Your task to perform on an android device: delete location history Image 0: 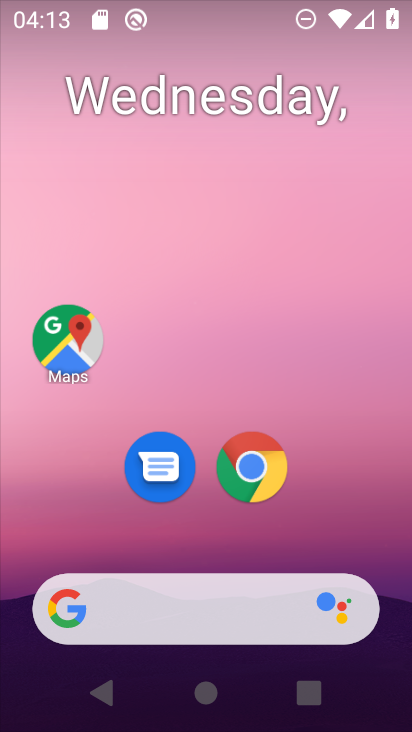
Step 0: click (63, 340)
Your task to perform on an android device: delete location history Image 1: 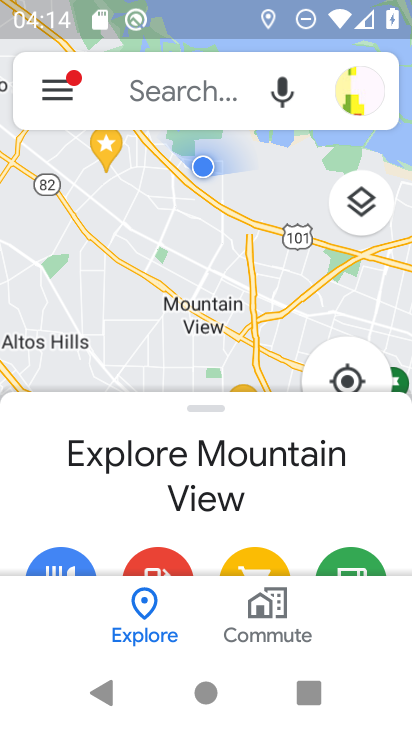
Step 1: click (60, 91)
Your task to perform on an android device: delete location history Image 2: 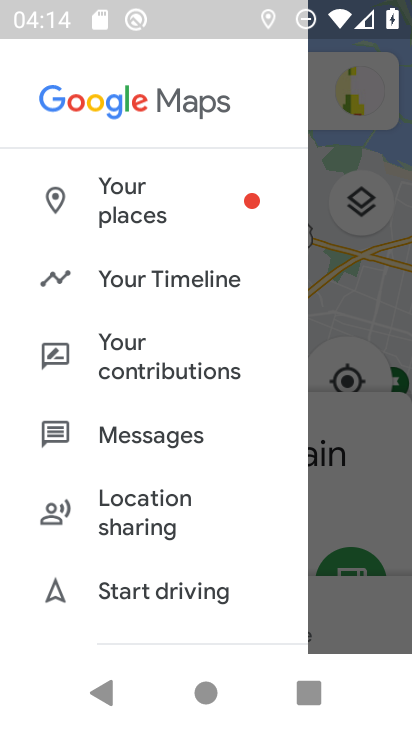
Step 2: drag from (232, 504) to (254, 234)
Your task to perform on an android device: delete location history Image 3: 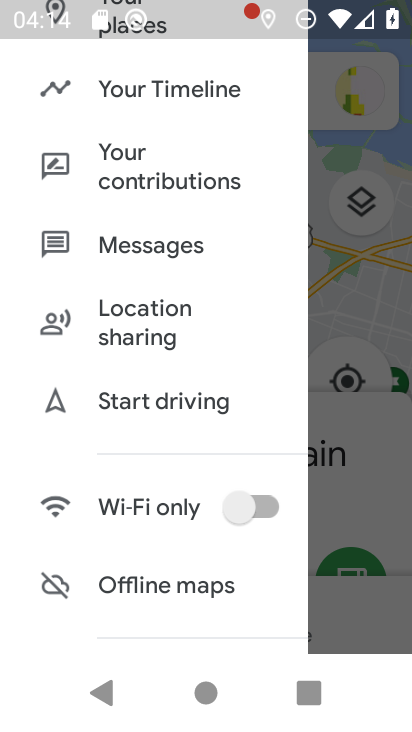
Step 3: drag from (229, 556) to (233, 268)
Your task to perform on an android device: delete location history Image 4: 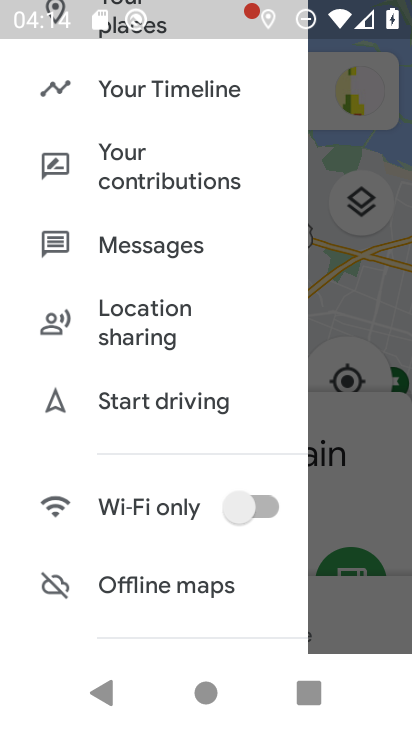
Step 4: drag from (219, 595) to (240, 226)
Your task to perform on an android device: delete location history Image 5: 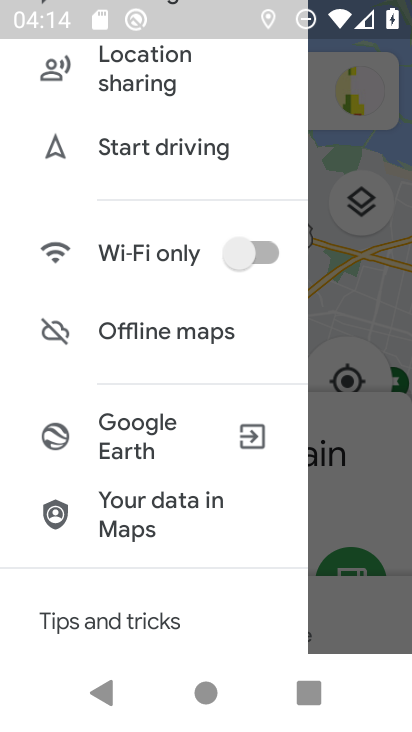
Step 5: drag from (228, 539) to (217, 249)
Your task to perform on an android device: delete location history Image 6: 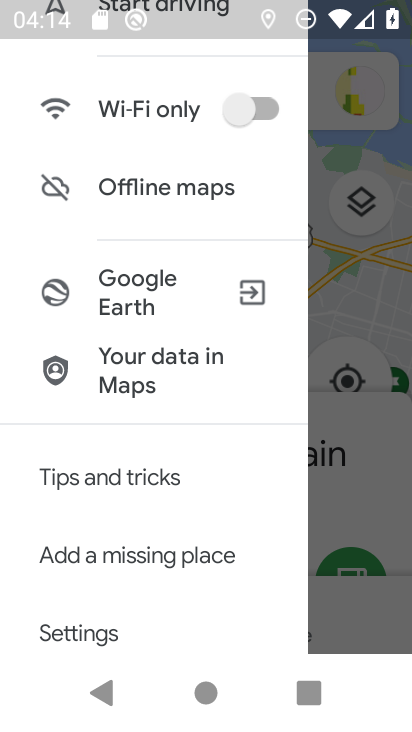
Step 6: drag from (179, 599) to (275, 337)
Your task to perform on an android device: delete location history Image 7: 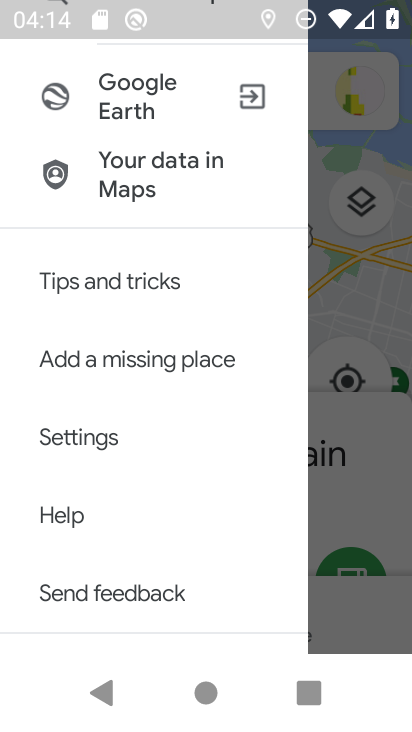
Step 7: click (67, 433)
Your task to perform on an android device: delete location history Image 8: 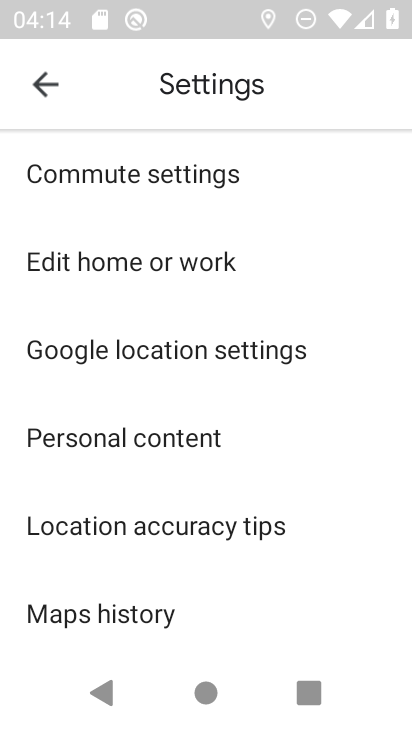
Step 8: click (107, 437)
Your task to perform on an android device: delete location history Image 9: 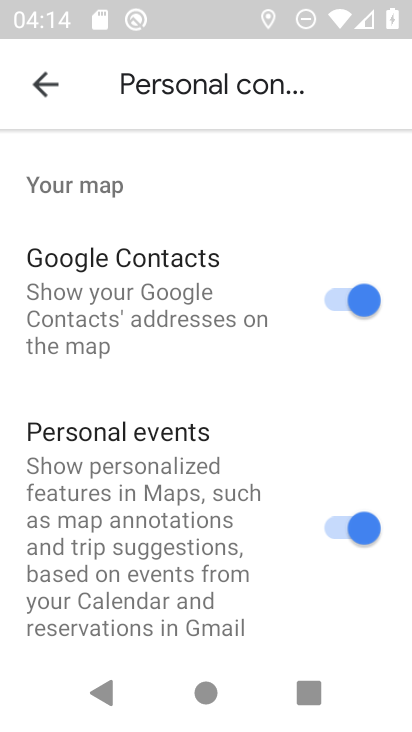
Step 9: drag from (285, 597) to (274, 272)
Your task to perform on an android device: delete location history Image 10: 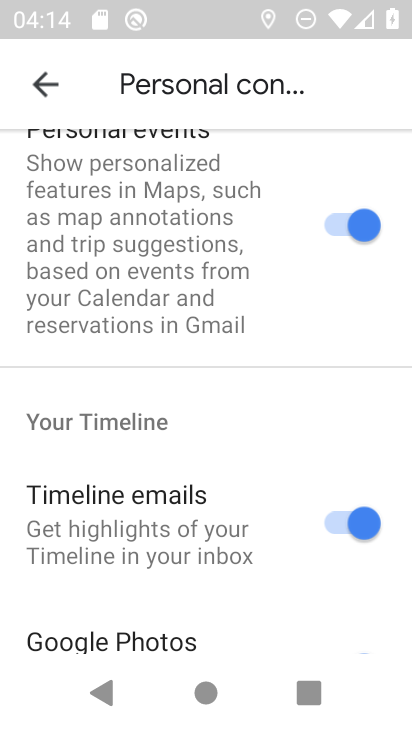
Step 10: drag from (254, 541) to (266, 193)
Your task to perform on an android device: delete location history Image 11: 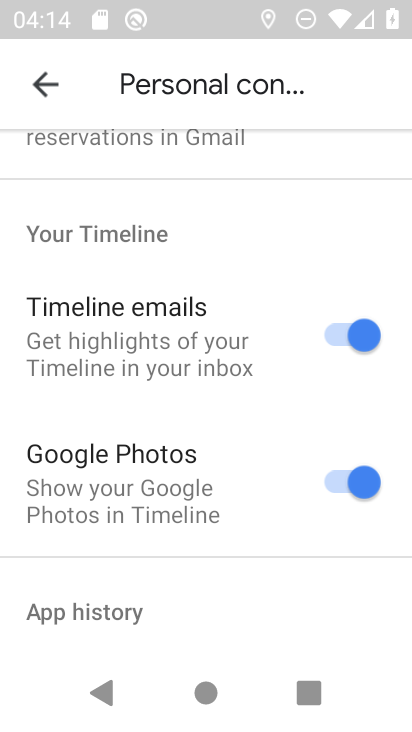
Step 11: drag from (239, 572) to (278, 213)
Your task to perform on an android device: delete location history Image 12: 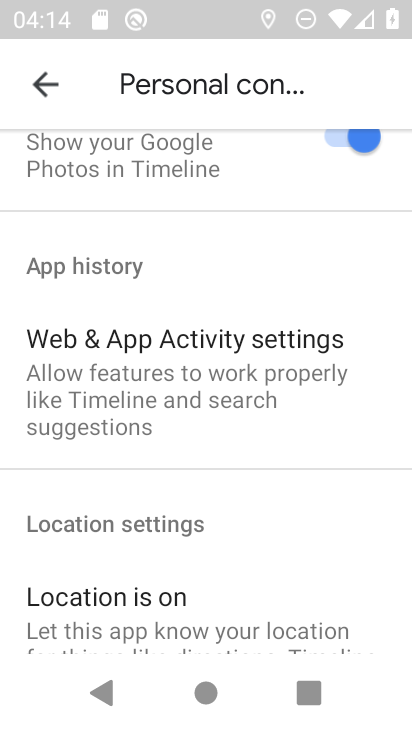
Step 12: drag from (271, 566) to (346, 204)
Your task to perform on an android device: delete location history Image 13: 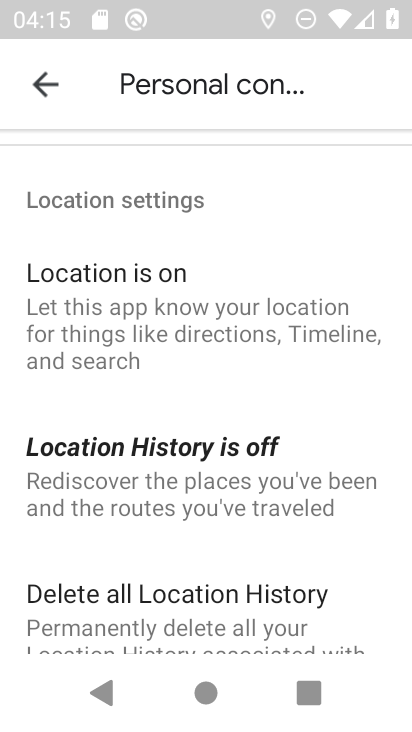
Step 13: click (107, 600)
Your task to perform on an android device: delete location history Image 14: 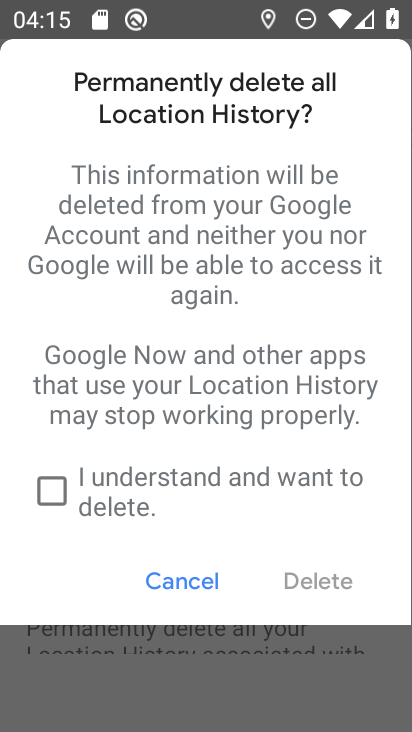
Step 14: click (54, 484)
Your task to perform on an android device: delete location history Image 15: 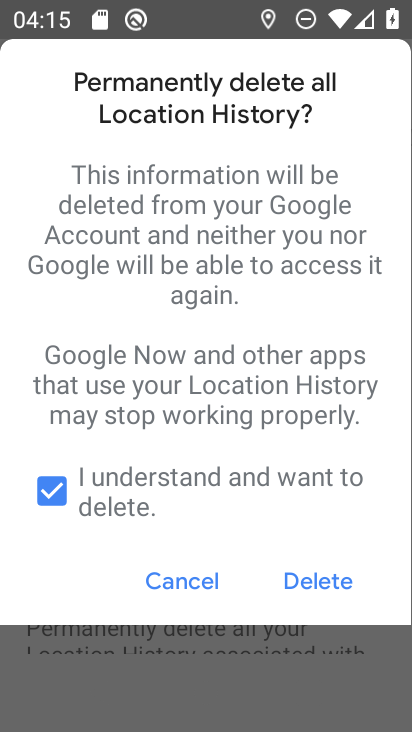
Step 15: click (309, 582)
Your task to perform on an android device: delete location history Image 16: 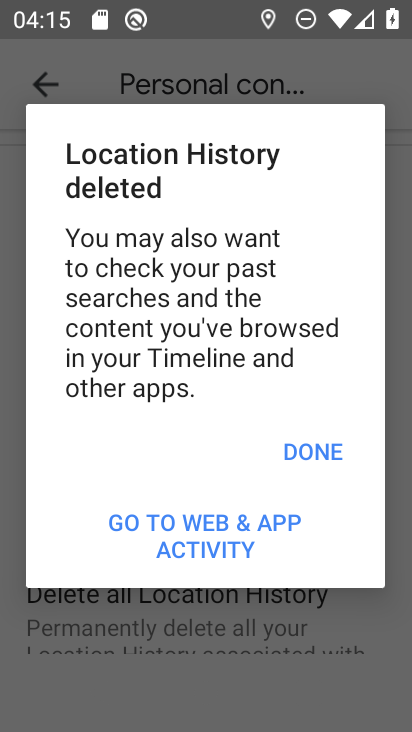
Step 16: click (306, 441)
Your task to perform on an android device: delete location history Image 17: 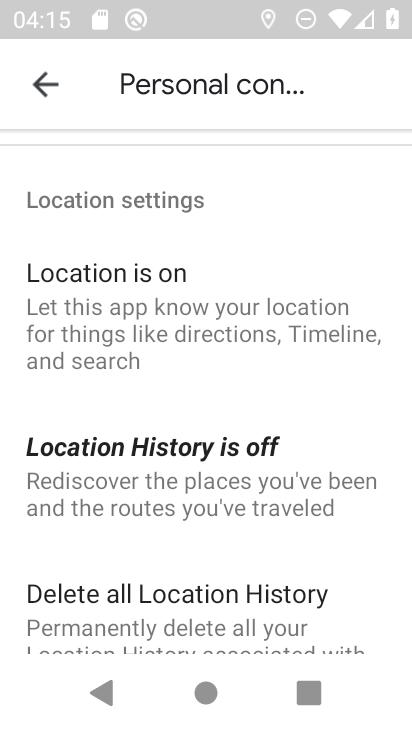
Step 17: task complete